Your task to perform on an android device: change text size in settings app Image 0: 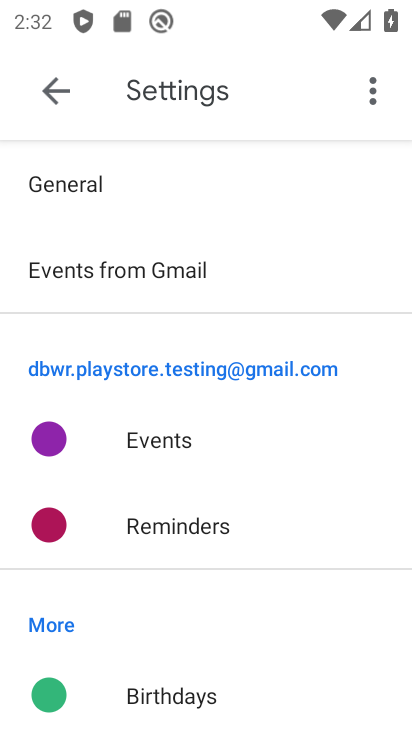
Step 0: press home button
Your task to perform on an android device: change text size in settings app Image 1: 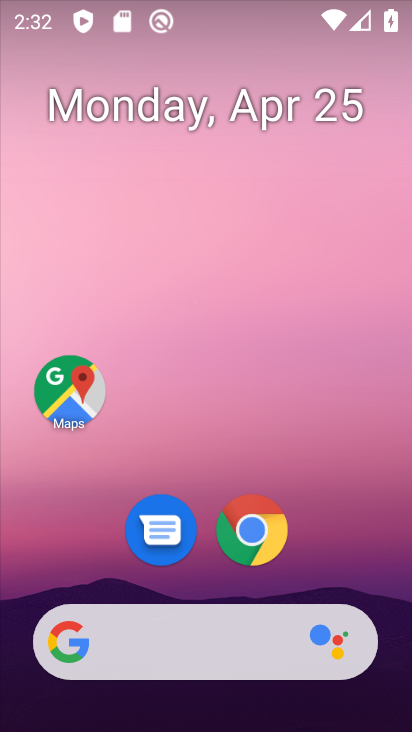
Step 1: drag from (312, 692) to (307, 209)
Your task to perform on an android device: change text size in settings app Image 2: 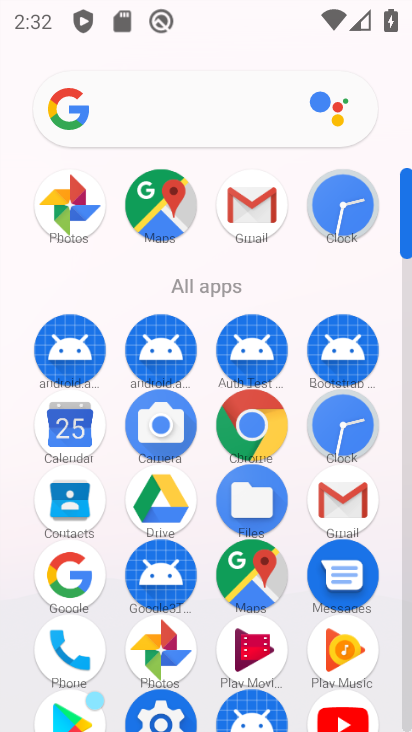
Step 2: drag from (200, 535) to (214, 266)
Your task to perform on an android device: change text size in settings app Image 3: 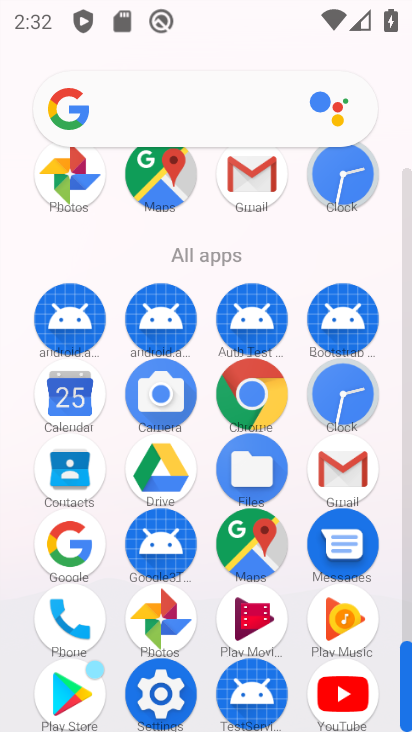
Step 3: click (190, 685)
Your task to perform on an android device: change text size in settings app Image 4: 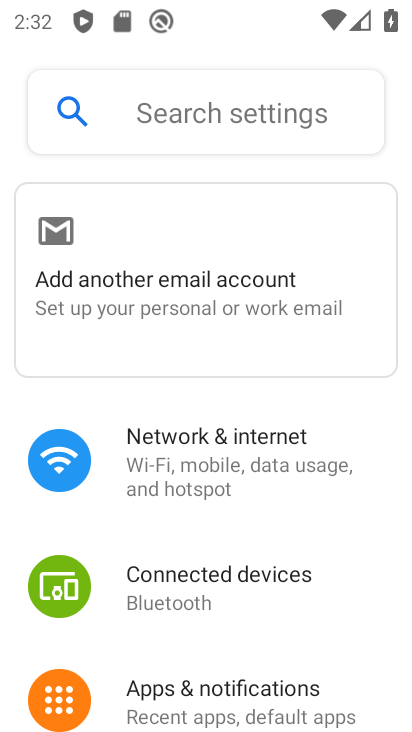
Step 4: click (149, 142)
Your task to perform on an android device: change text size in settings app Image 5: 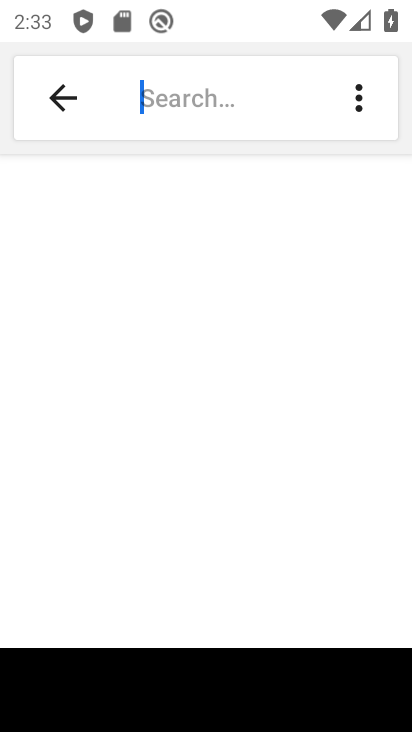
Step 5: drag from (382, 682) to (363, 589)
Your task to perform on an android device: change text size in settings app Image 6: 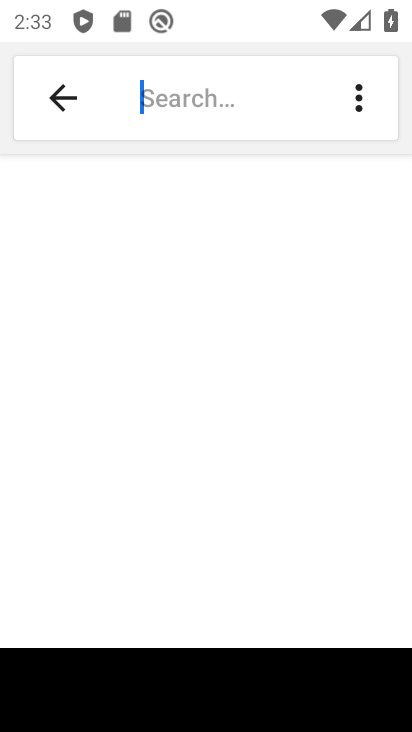
Step 6: click (397, 707)
Your task to perform on an android device: change text size in settings app Image 7: 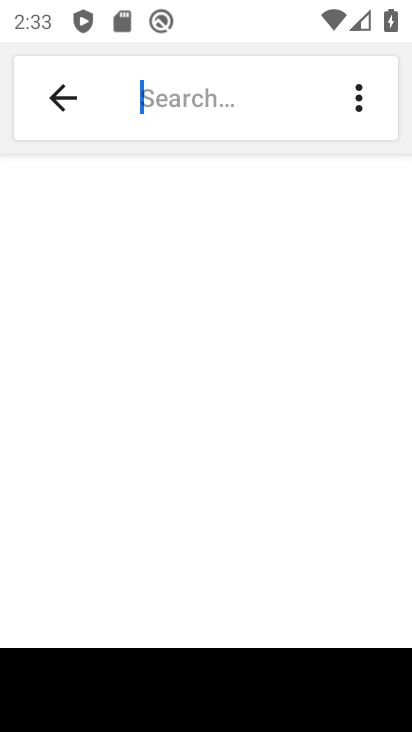
Step 7: drag from (392, 709) to (349, 390)
Your task to perform on an android device: change text size in settings app Image 8: 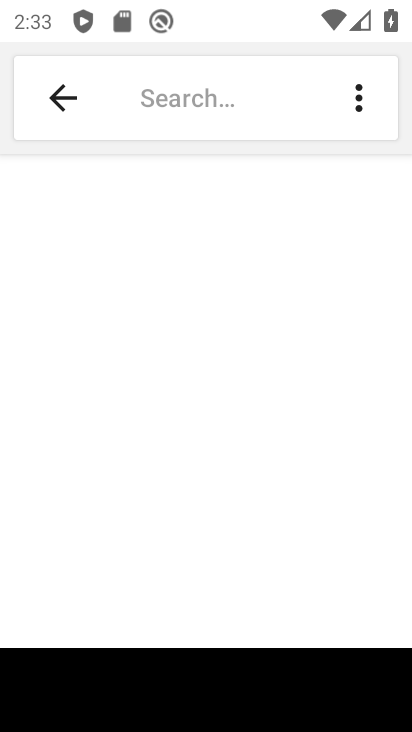
Step 8: click (191, 96)
Your task to perform on an android device: change text size in settings app Image 9: 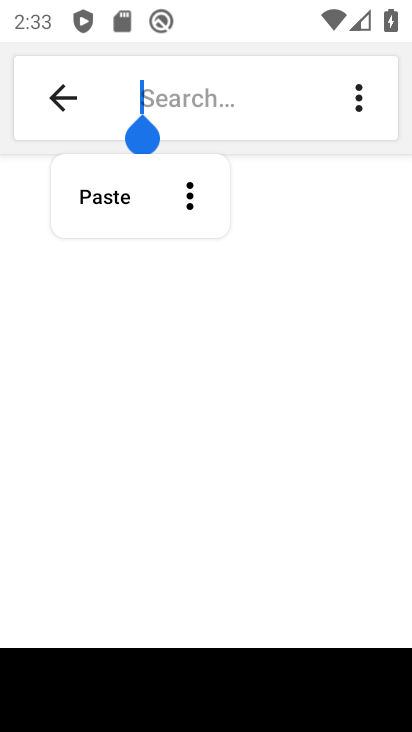
Step 9: drag from (376, 698) to (360, 469)
Your task to perform on an android device: change text size in settings app Image 10: 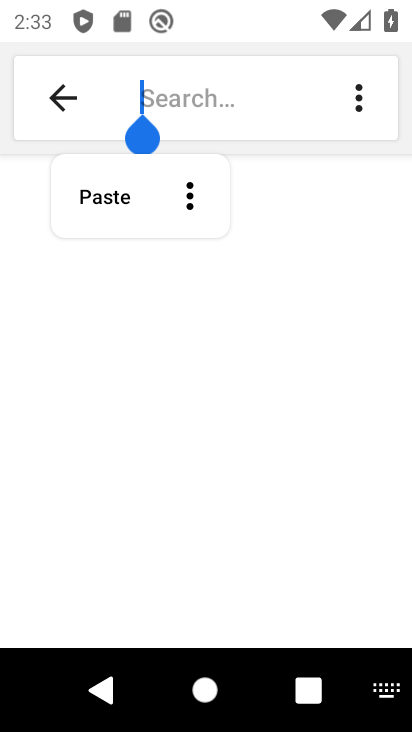
Step 10: click (393, 697)
Your task to perform on an android device: change text size in settings app Image 11: 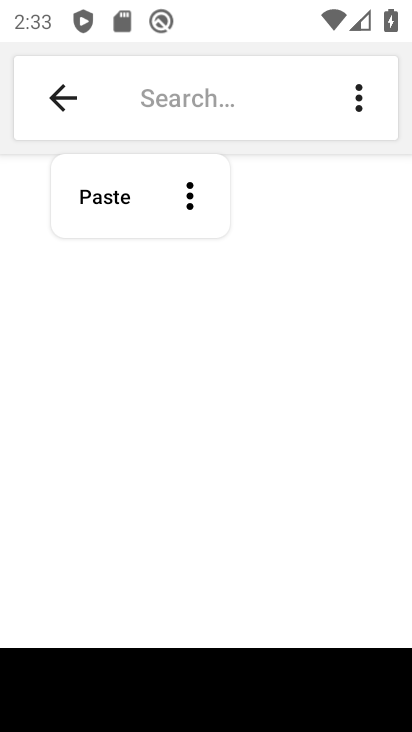
Step 11: drag from (386, 695) to (381, 441)
Your task to perform on an android device: change text size in settings app Image 12: 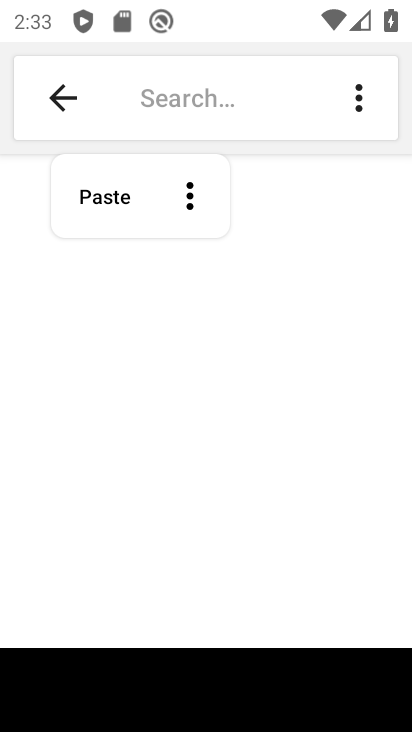
Step 12: click (379, 697)
Your task to perform on an android device: change text size in settings app Image 13: 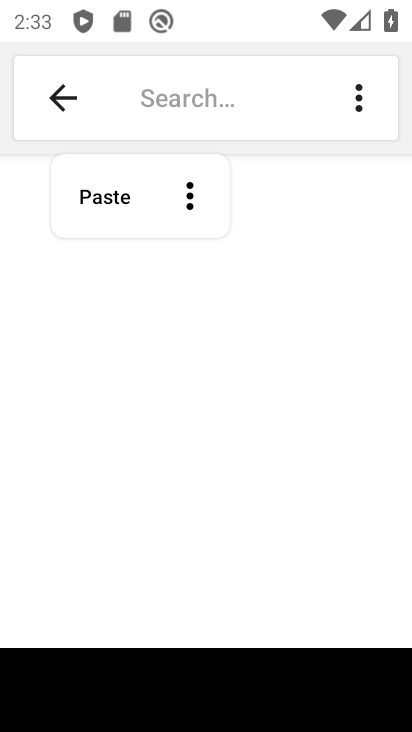
Step 13: drag from (382, 701) to (383, 458)
Your task to perform on an android device: change text size in settings app Image 14: 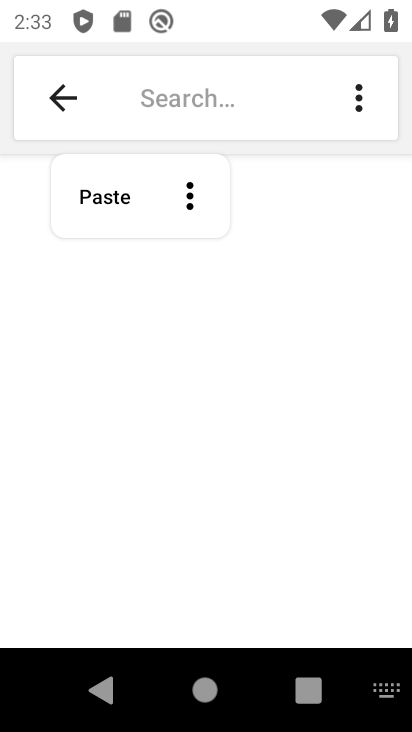
Step 14: click (400, 684)
Your task to perform on an android device: change text size in settings app Image 15: 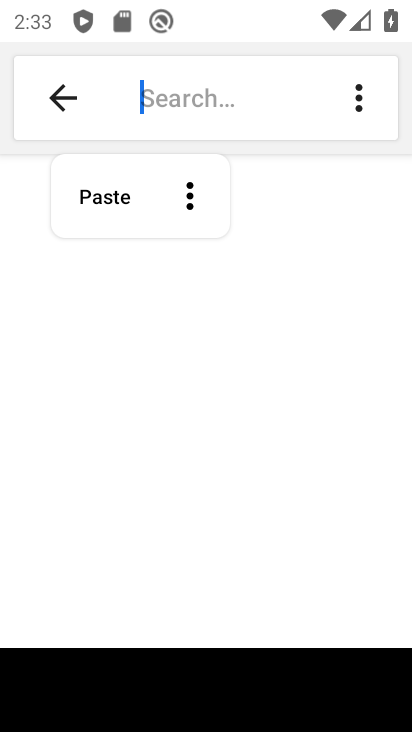
Step 15: click (162, 92)
Your task to perform on an android device: change text size in settings app Image 16: 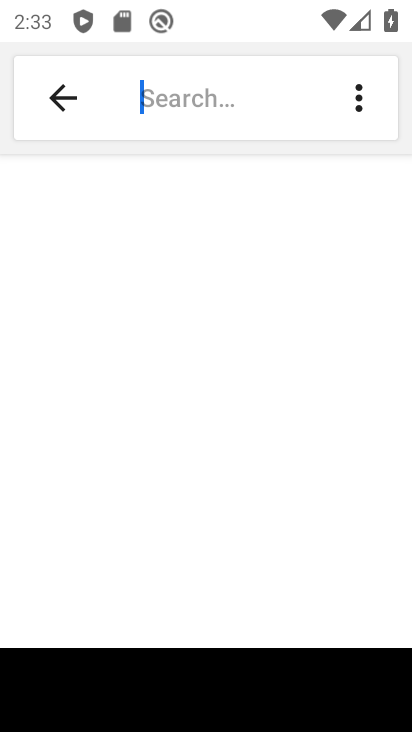
Step 16: drag from (396, 688) to (349, 410)
Your task to perform on an android device: change text size in settings app Image 17: 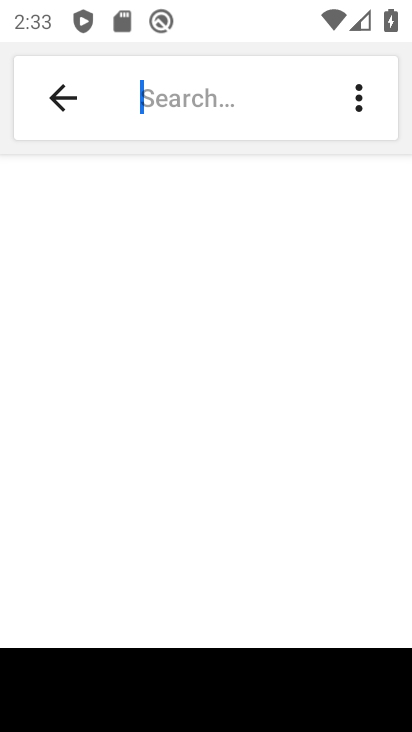
Step 17: drag from (352, 686) to (324, 431)
Your task to perform on an android device: change text size in settings app Image 18: 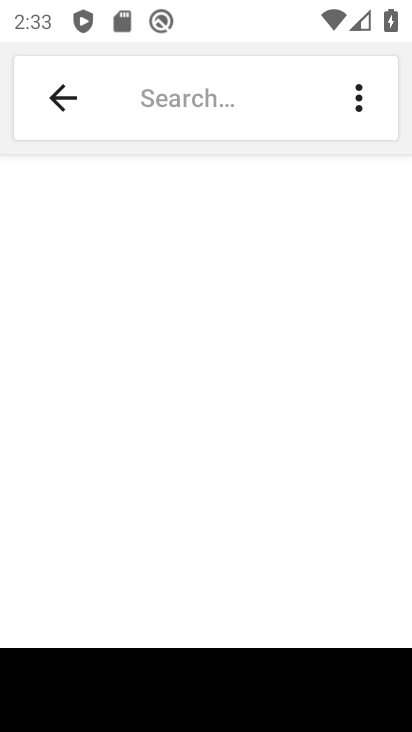
Step 18: click (389, 705)
Your task to perform on an android device: change text size in settings app Image 19: 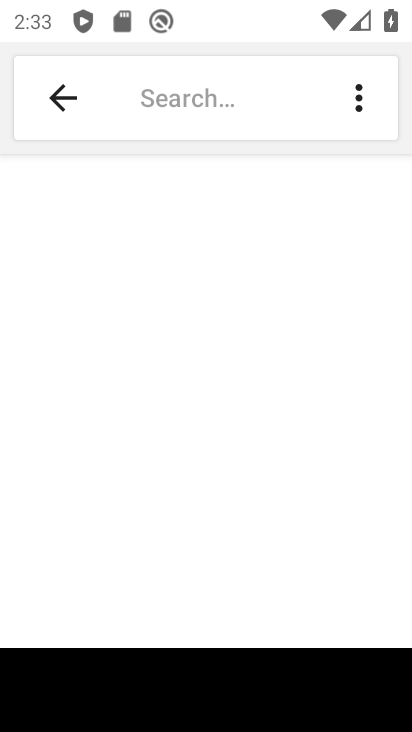
Step 19: drag from (393, 702) to (352, 488)
Your task to perform on an android device: change text size in settings app Image 20: 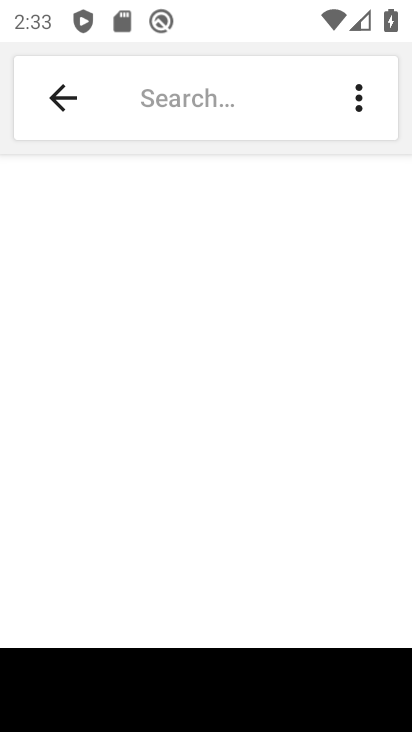
Step 20: drag from (331, 672) to (311, 449)
Your task to perform on an android device: change text size in settings app Image 21: 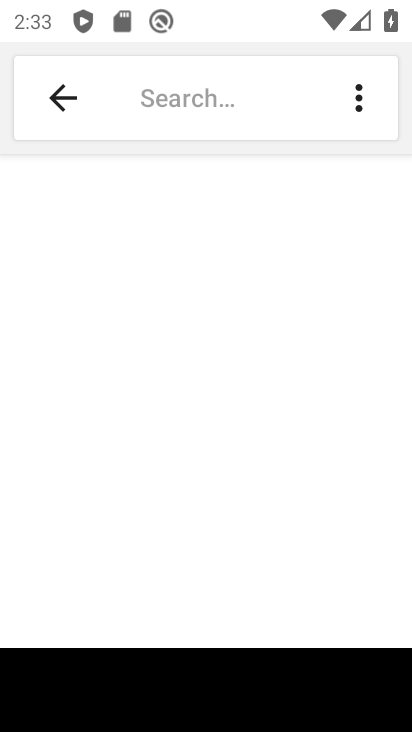
Step 21: drag from (383, 708) to (365, 657)
Your task to perform on an android device: change text size in settings app Image 22: 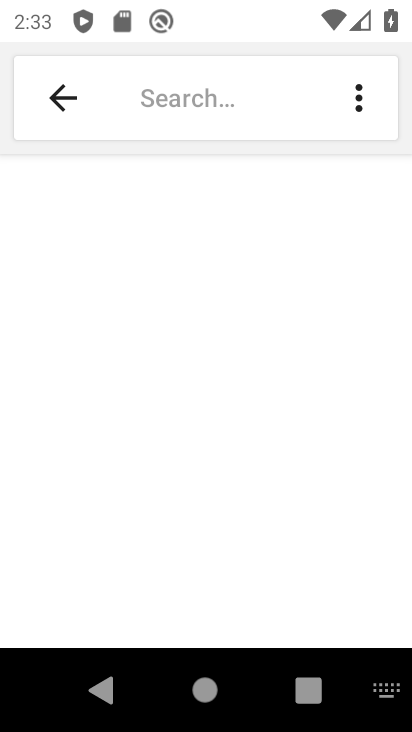
Step 22: click (391, 689)
Your task to perform on an android device: change text size in settings app Image 23: 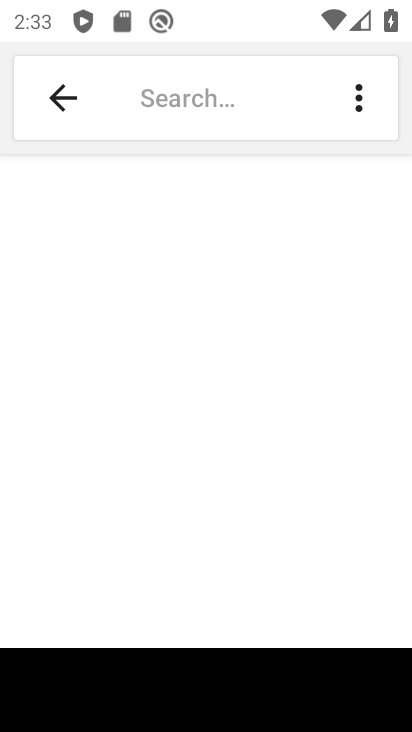
Step 23: click (59, 113)
Your task to perform on an android device: change text size in settings app Image 24: 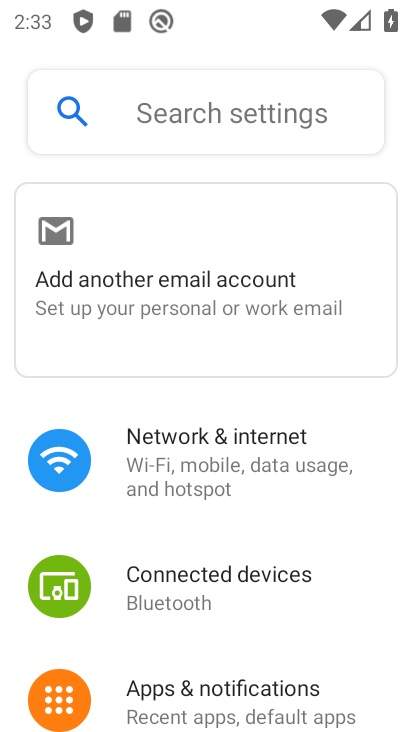
Step 24: click (161, 129)
Your task to perform on an android device: change text size in settings app Image 25: 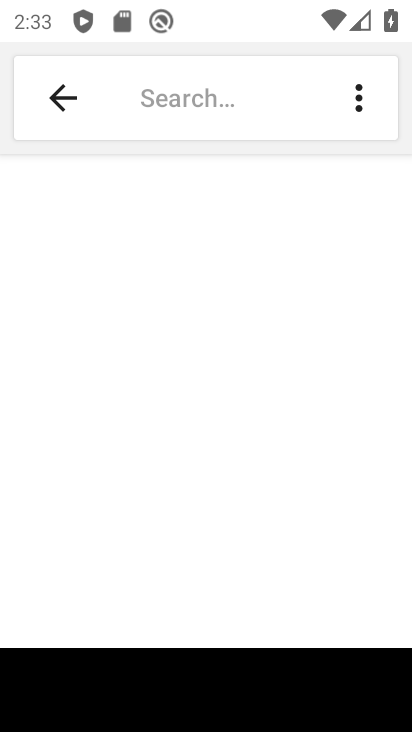
Step 25: drag from (373, 682) to (357, 520)
Your task to perform on an android device: change text size in settings app Image 26: 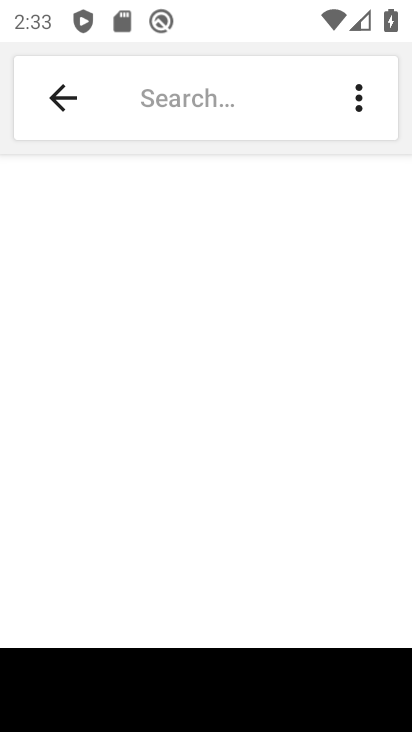
Step 26: drag from (387, 707) to (387, 651)
Your task to perform on an android device: change text size in settings app Image 27: 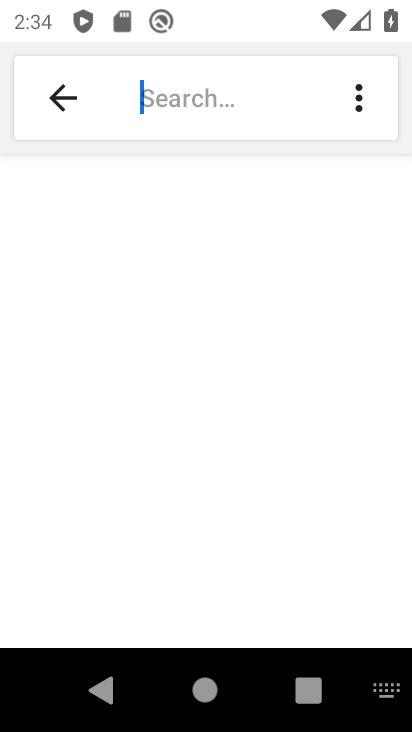
Step 27: click (394, 701)
Your task to perform on an android device: change text size in settings app Image 28: 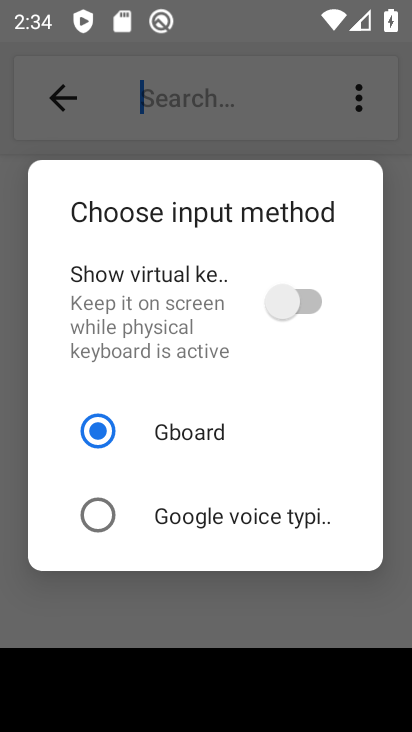
Step 28: click (295, 313)
Your task to perform on an android device: change text size in settings app Image 29: 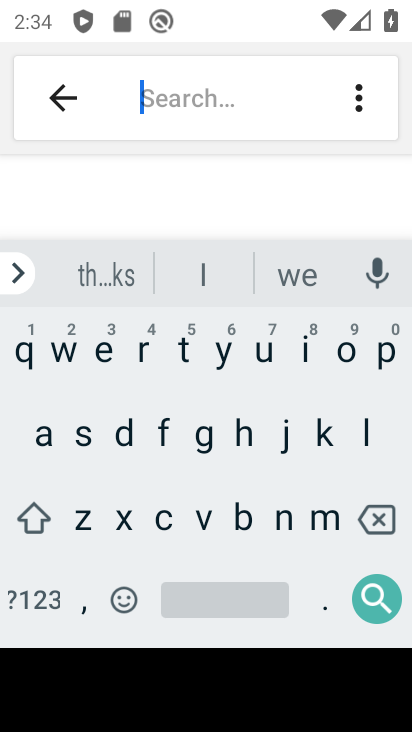
Step 29: click (79, 438)
Your task to perform on an android device: change text size in settings app Image 30: 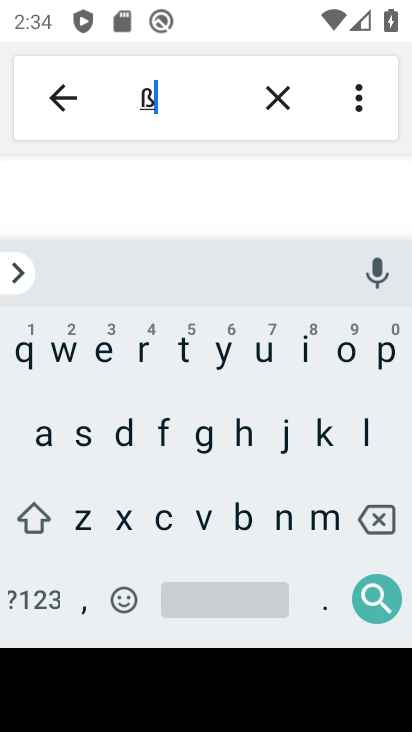
Step 30: click (381, 521)
Your task to perform on an android device: change text size in settings app Image 31: 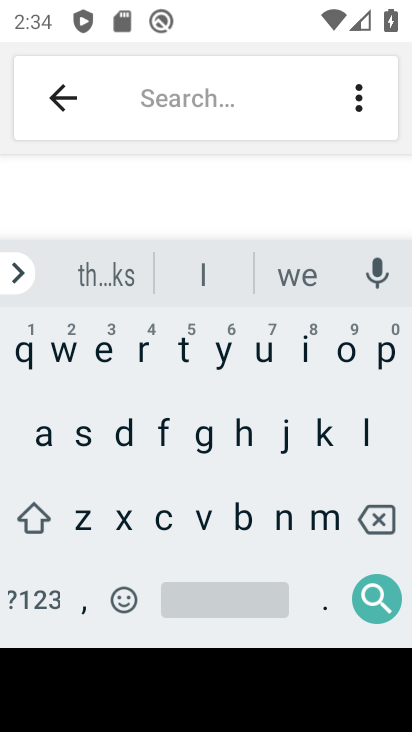
Step 31: click (92, 417)
Your task to perform on an android device: change text size in settings app Image 32: 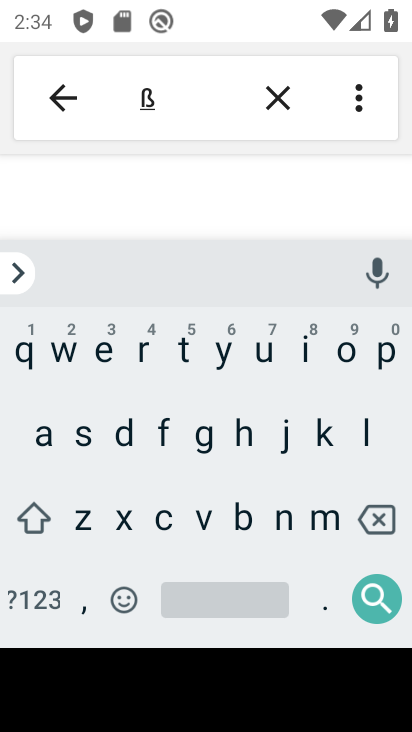
Step 32: click (374, 512)
Your task to perform on an android device: change text size in settings app Image 33: 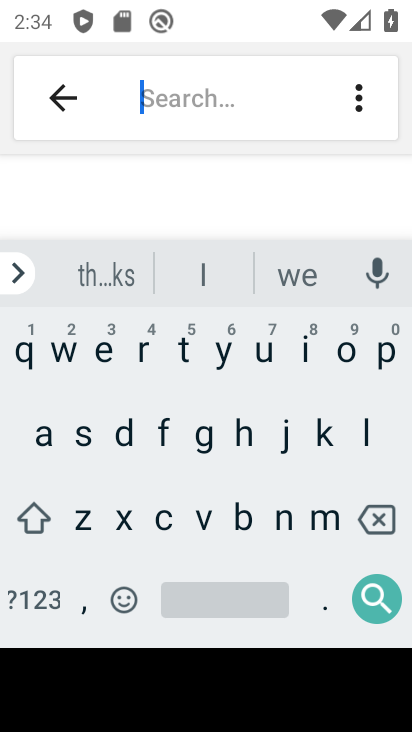
Step 33: click (78, 437)
Your task to perform on an android device: change text size in settings app Image 34: 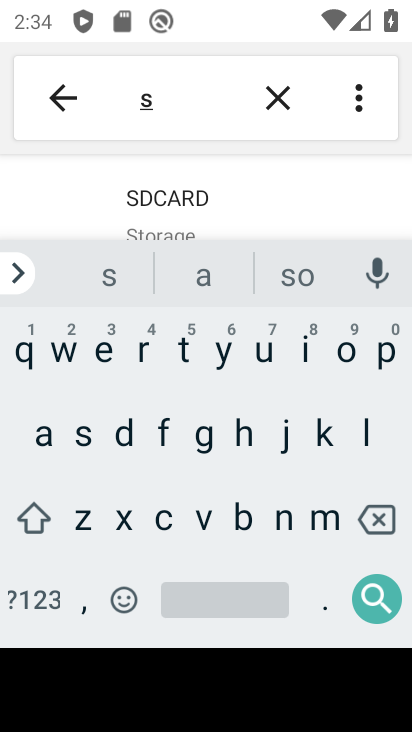
Step 34: click (313, 360)
Your task to perform on an android device: change text size in settings app Image 35: 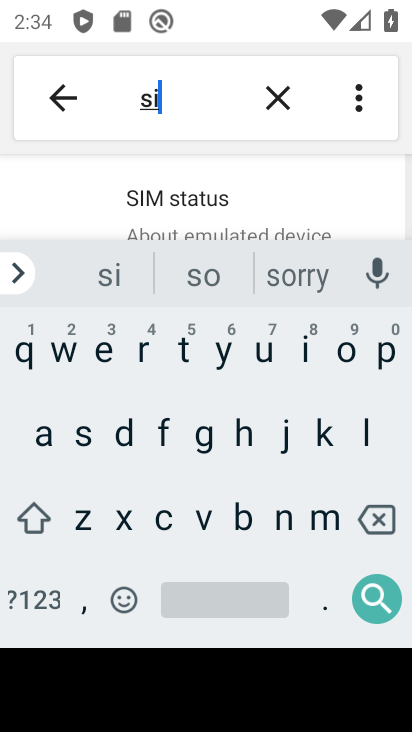
Step 35: click (79, 515)
Your task to perform on an android device: change text size in settings app Image 36: 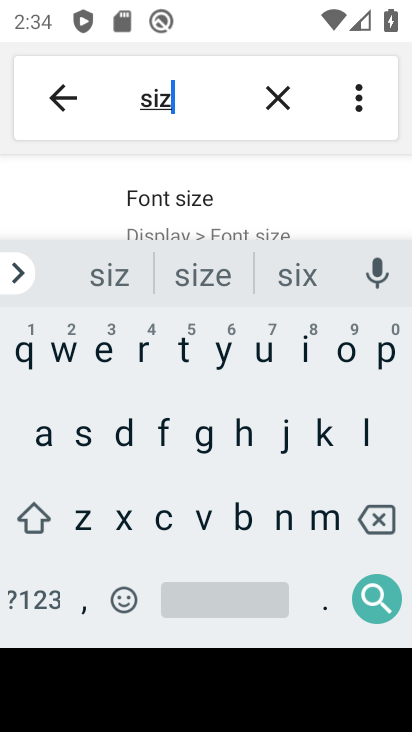
Step 36: click (191, 192)
Your task to perform on an android device: change text size in settings app Image 37: 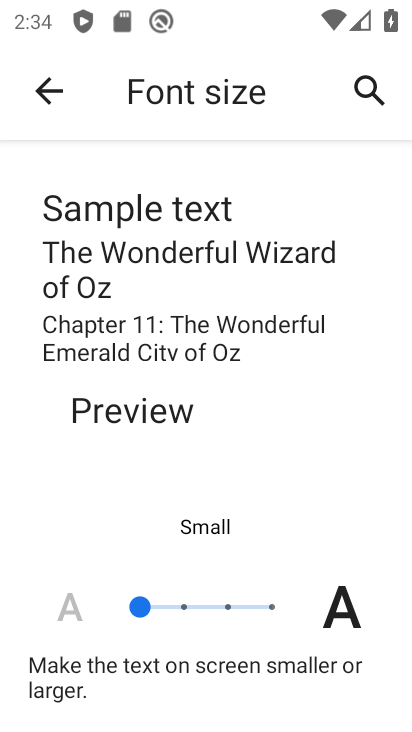
Step 37: drag from (215, 370) to (212, 179)
Your task to perform on an android device: change text size in settings app Image 38: 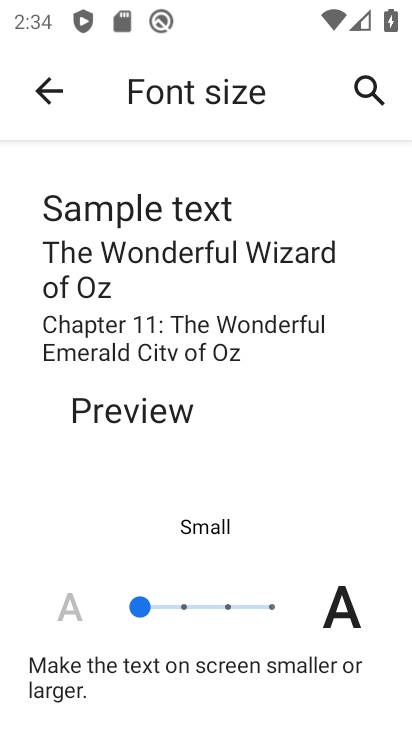
Step 38: click (178, 607)
Your task to perform on an android device: change text size in settings app Image 39: 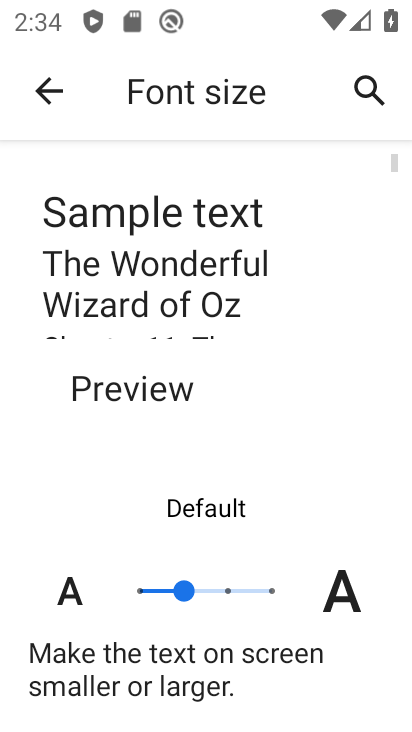
Step 39: task complete